Your task to perform on an android device: turn off airplane mode Image 0: 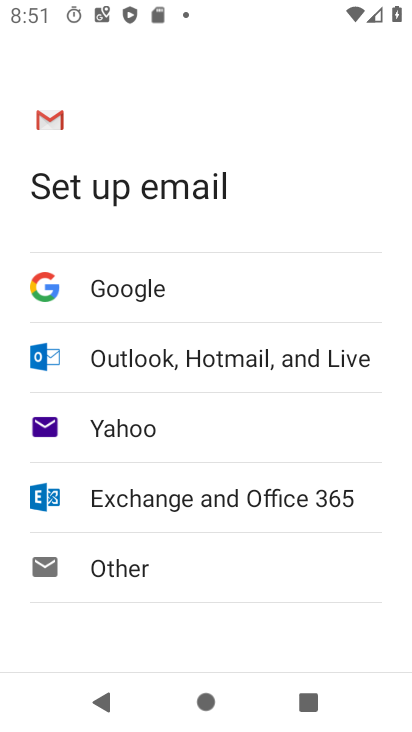
Step 0: press home button
Your task to perform on an android device: turn off airplane mode Image 1: 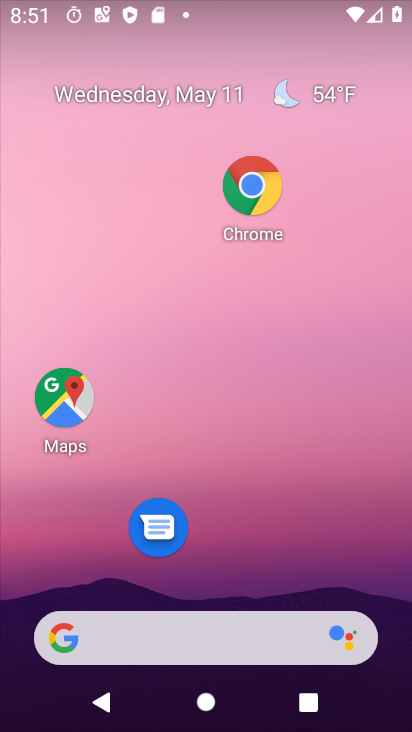
Step 1: drag from (250, 558) to (248, 36)
Your task to perform on an android device: turn off airplane mode Image 2: 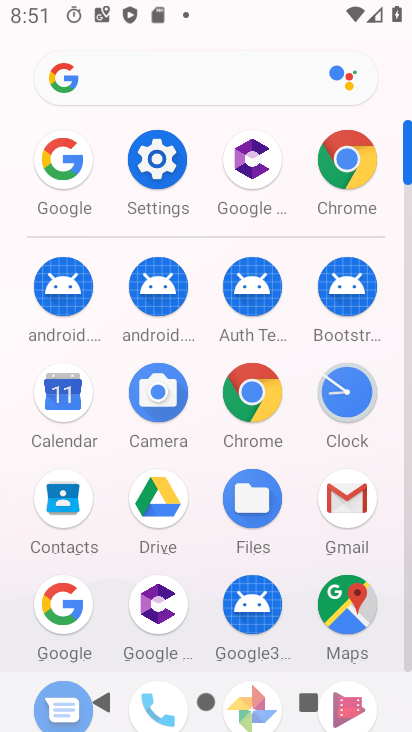
Step 2: click (154, 153)
Your task to perform on an android device: turn off airplane mode Image 3: 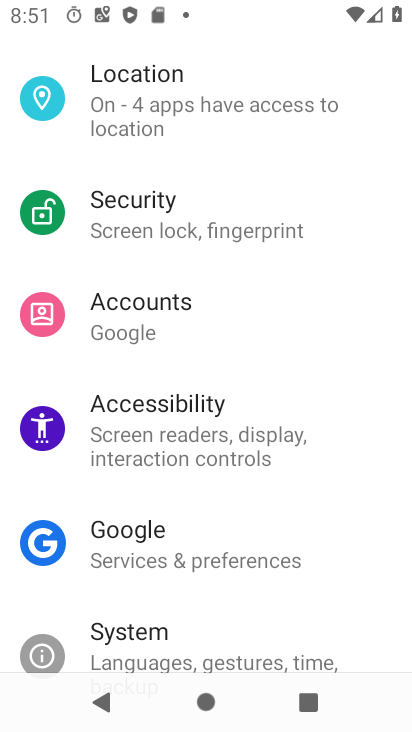
Step 3: drag from (169, 106) to (193, 709)
Your task to perform on an android device: turn off airplane mode Image 4: 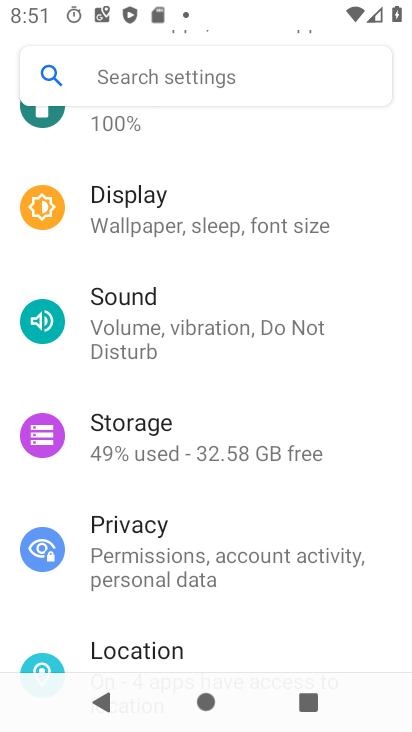
Step 4: drag from (199, 192) to (200, 731)
Your task to perform on an android device: turn off airplane mode Image 5: 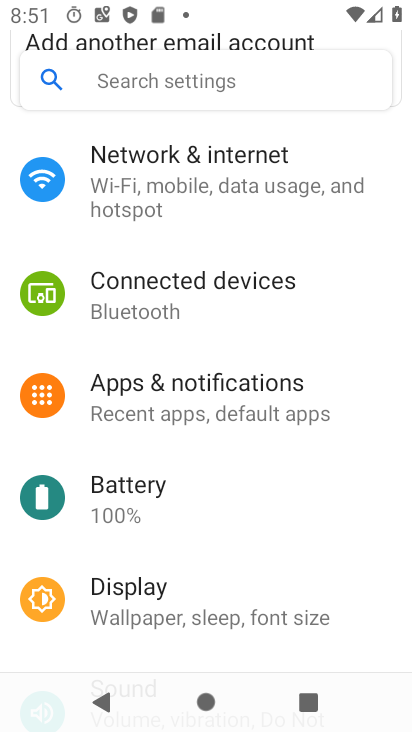
Step 5: click (199, 181)
Your task to perform on an android device: turn off airplane mode Image 6: 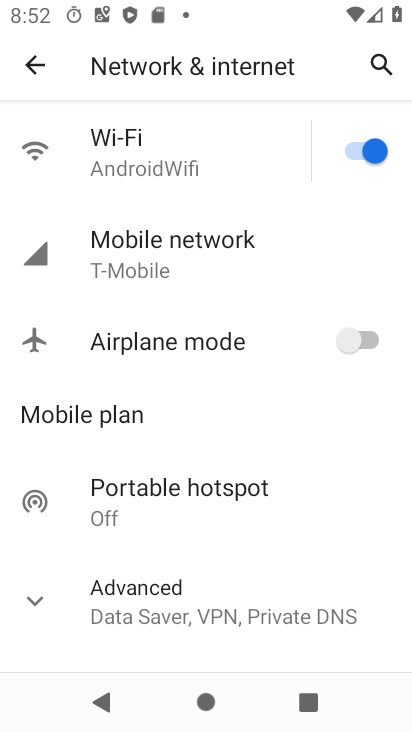
Step 6: task complete